Your task to perform on an android device: turn vacation reply on in the gmail app Image 0: 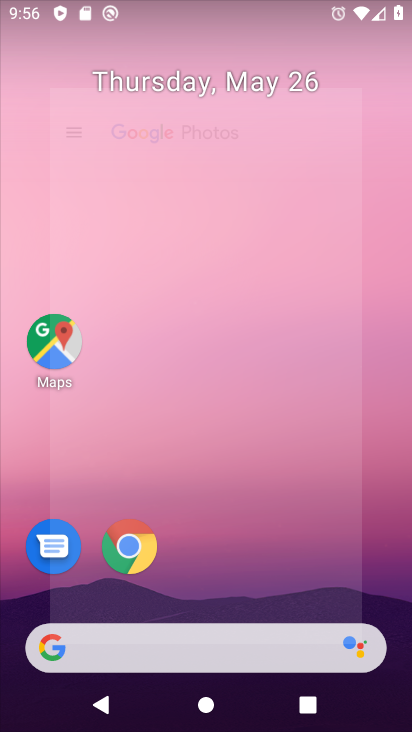
Step 0: drag from (267, 549) to (227, 84)
Your task to perform on an android device: turn vacation reply on in the gmail app Image 1: 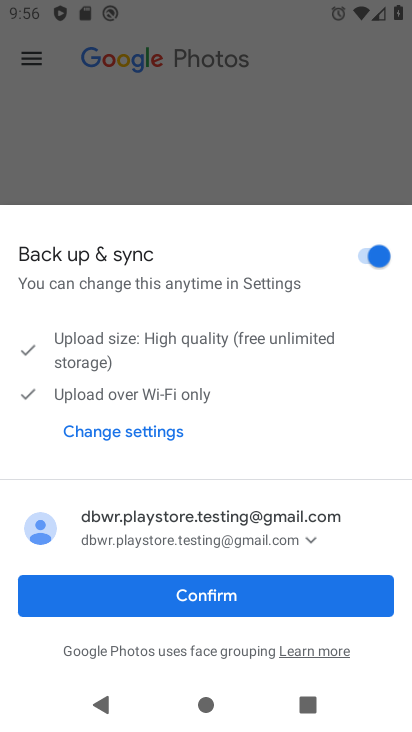
Step 1: press home button
Your task to perform on an android device: turn vacation reply on in the gmail app Image 2: 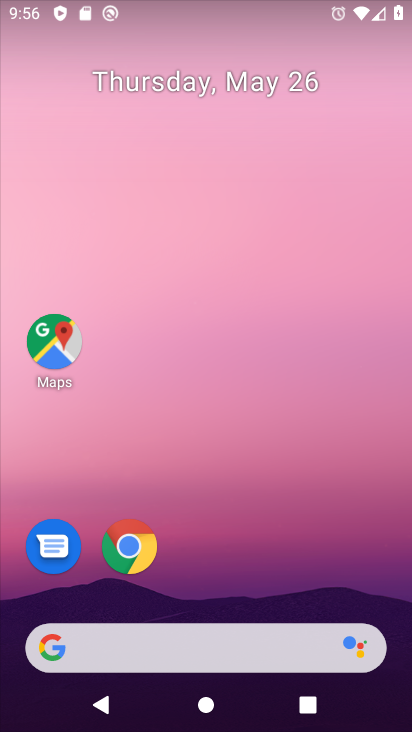
Step 2: drag from (262, 583) to (219, 145)
Your task to perform on an android device: turn vacation reply on in the gmail app Image 3: 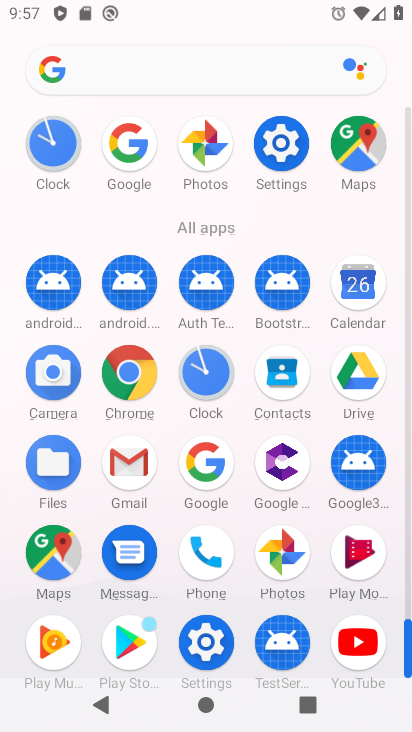
Step 3: click (131, 462)
Your task to perform on an android device: turn vacation reply on in the gmail app Image 4: 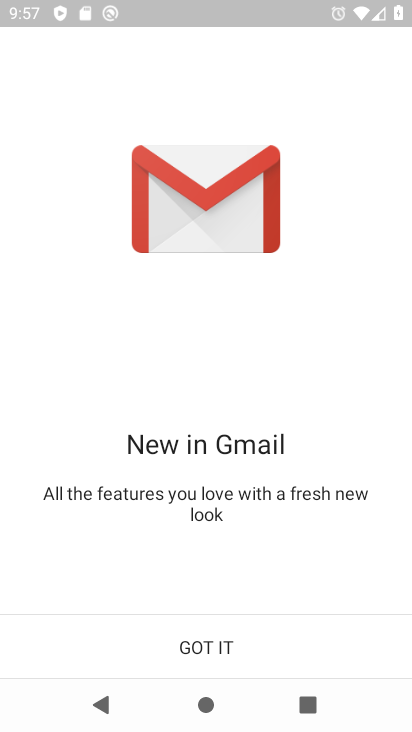
Step 4: click (213, 645)
Your task to perform on an android device: turn vacation reply on in the gmail app Image 5: 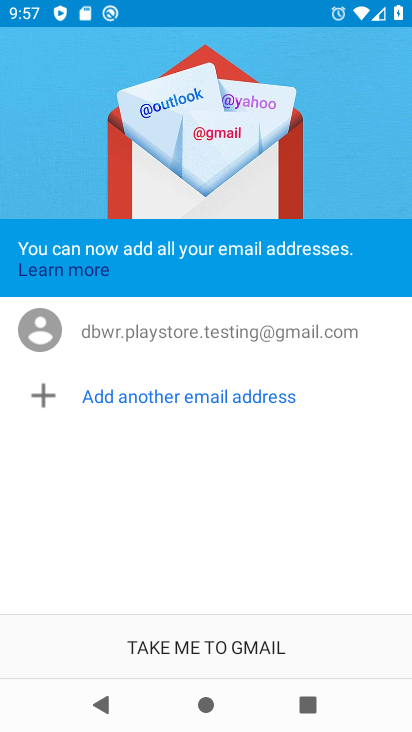
Step 5: click (213, 645)
Your task to perform on an android device: turn vacation reply on in the gmail app Image 6: 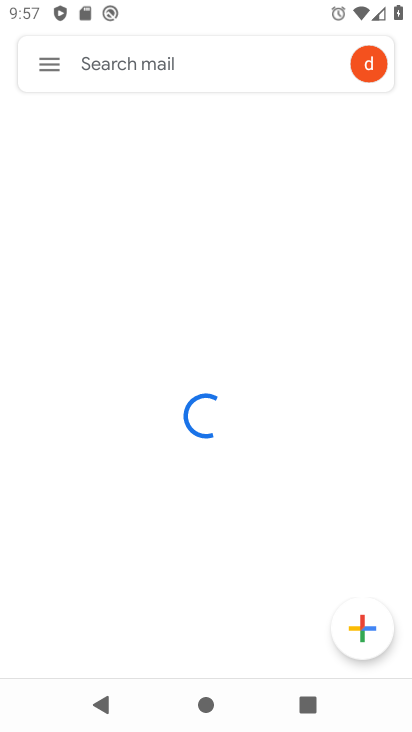
Step 6: click (44, 66)
Your task to perform on an android device: turn vacation reply on in the gmail app Image 7: 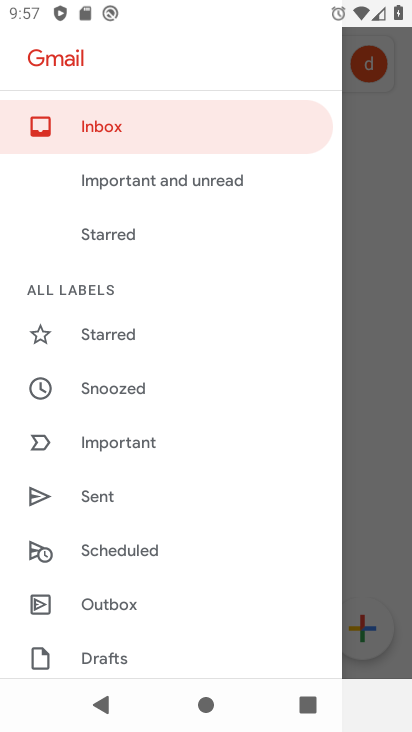
Step 7: drag from (110, 309) to (141, 233)
Your task to perform on an android device: turn vacation reply on in the gmail app Image 8: 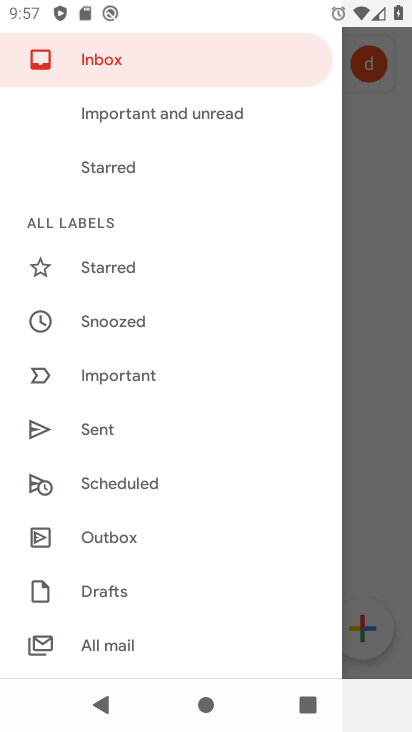
Step 8: drag from (109, 348) to (135, 277)
Your task to perform on an android device: turn vacation reply on in the gmail app Image 9: 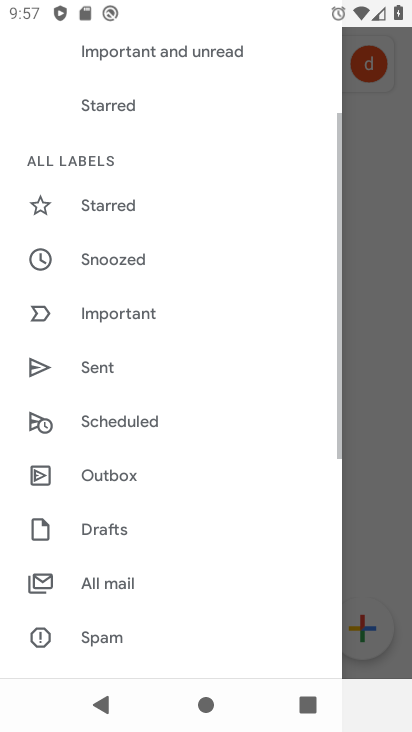
Step 9: drag from (108, 395) to (128, 325)
Your task to perform on an android device: turn vacation reply on in the gmail app Image 10: 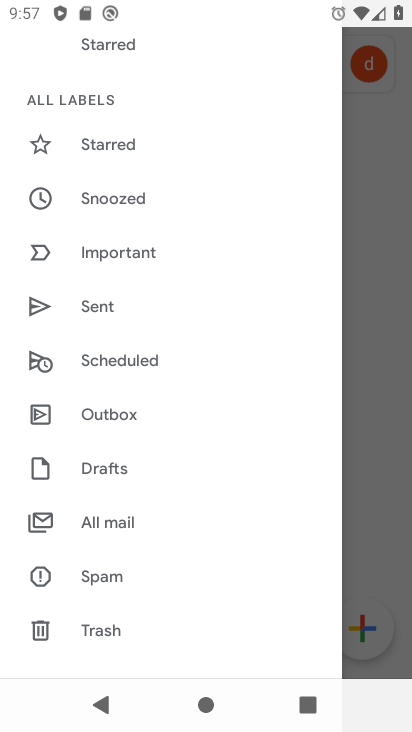
Step 10: drag from (114, 385) to (144, 311)
Your task to perform on an android device: turn vacation reply on in the gmail app Image 11: 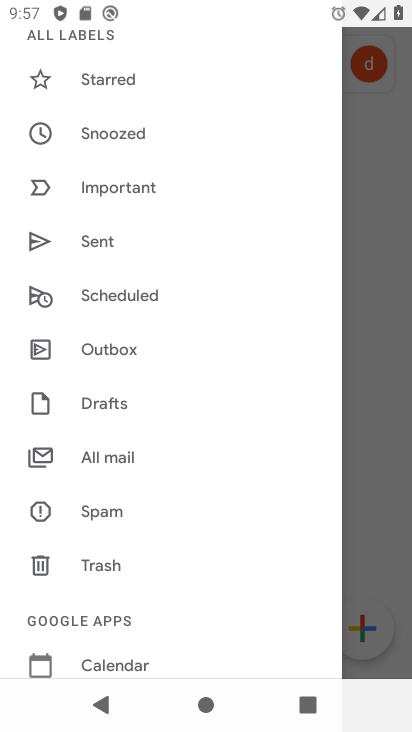
Step 11: drag from (105, 424) to (161, 349)
Your task to perform on an android device: turn vacation reply on in the gmail app Image 12: 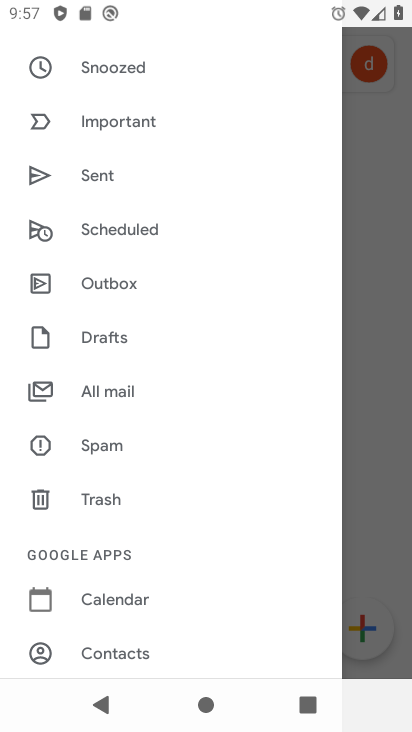
Step 12: drag from (111, 468) to (155, 385)
Your task to perform on an android device: turn vacation reply on in the gmail app Image 13: 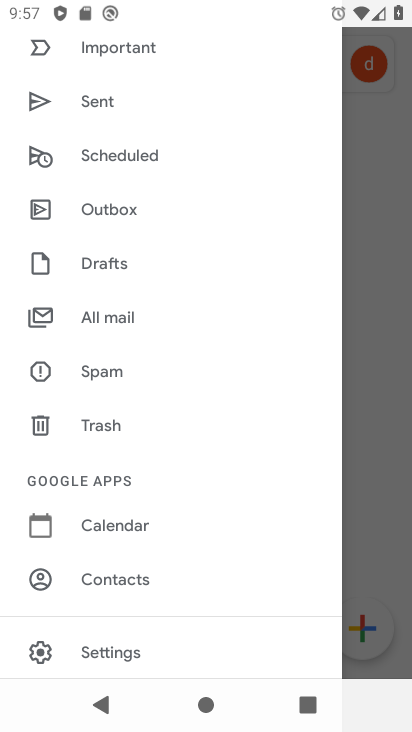
Step 13: drag from (103, 540) to (178, 456)
Your task to perform on an android device: turn vacation reply on in the gmail app Image 14: 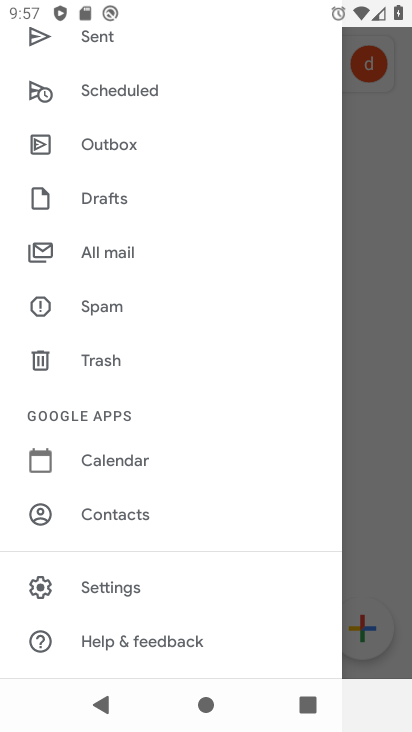
Step 14: click (107, 588)
Your task to perform on an android device: turn vacation reply on in the gmail app Image 15: 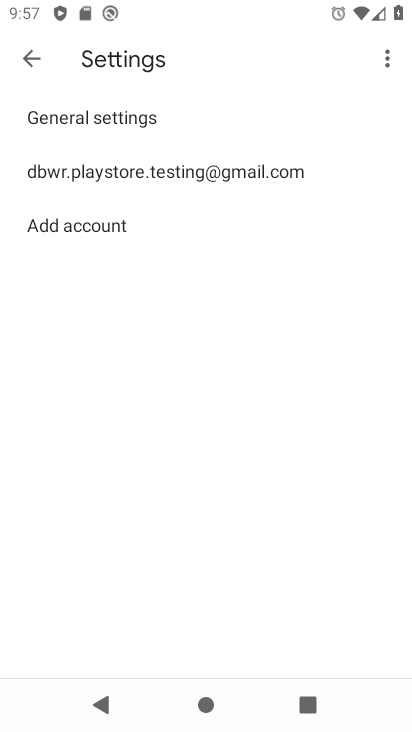
Step 15: click (160, 167)
Your task to perform on an android device: turn vacation reply on in the gmail app Image 16: 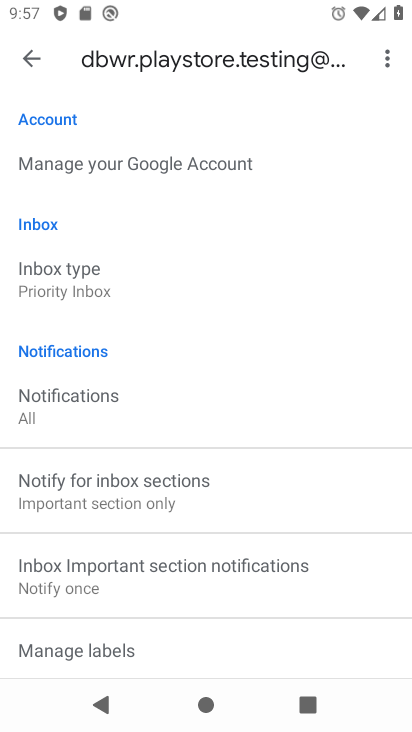
Step 16: drag from (122, 491) to (181, 378)
Your task to perform on an android device: turn vacation reply on in the gmail app Image 17: 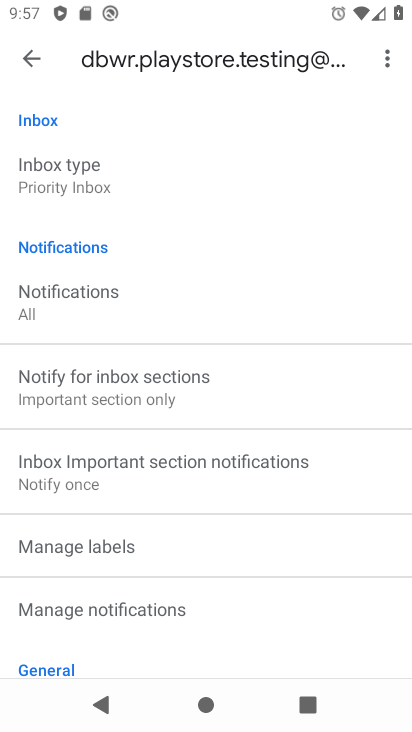
Step 17: drag from (131, 493) to (180, 419)
Your task to perform on an android device: turn vacation reply on in the gmail app Image 18: 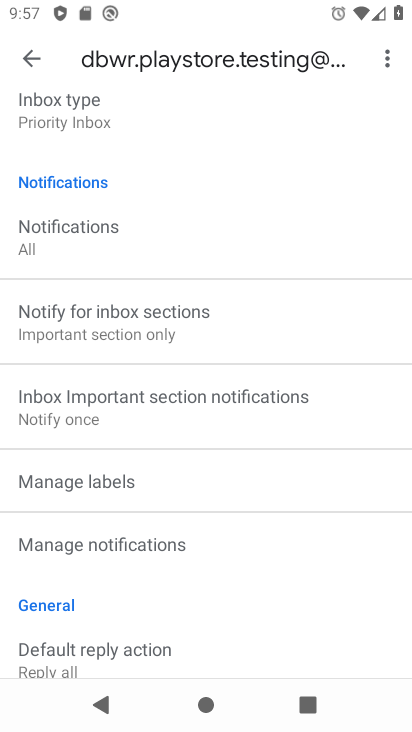
Step 18: drag from (124, 555) to (190, 463)
Your task to perform on an android device: turn vacation reply on in the gmail app Image 19: 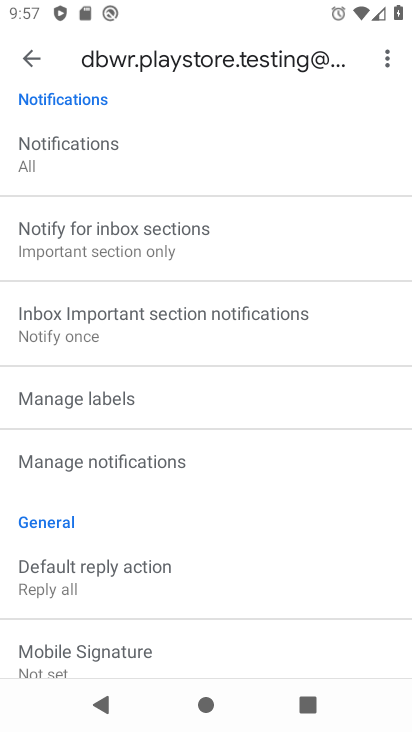
Step 19: drag from (113, 552) to (159, 477)
Your task to perform on an android device: turn vacation reply on in the gmail app Image 20: 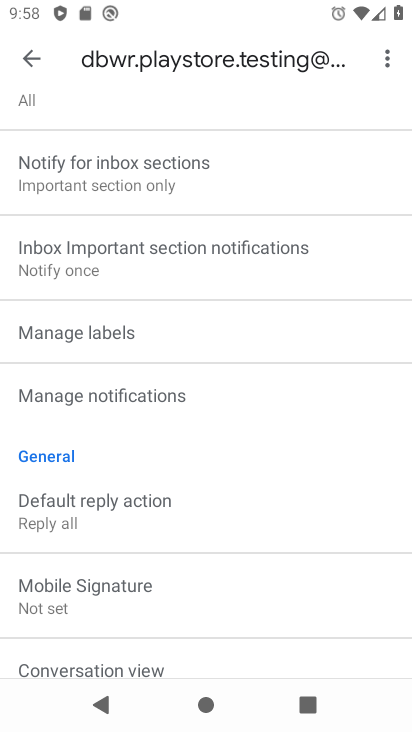
Step 20: drag from (104, 531) to (170, 454)
Your task to perform on an android device: turn vacation reply on in the gmail app Image 21: 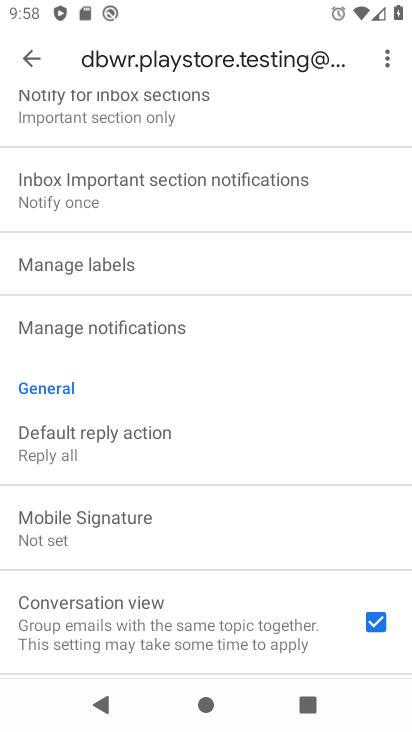
Step 21: click (162, 465)
Your task to perform on an android device: turn vacation reply on in the gmail app Image 22: 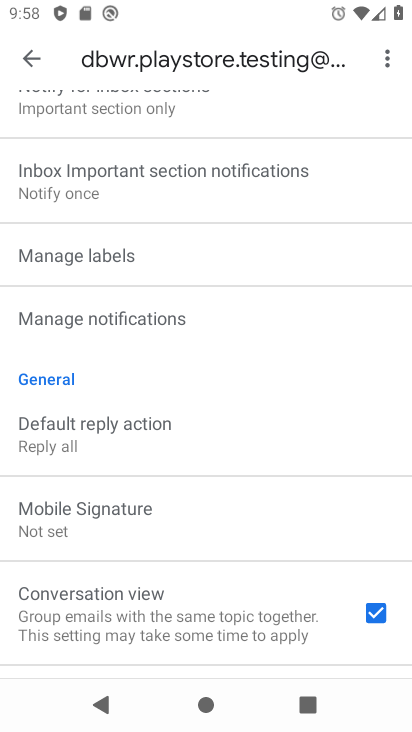
Step 22: drag from (108, 544) to (166, 450)
Your task to perform on an android device: turn vacation reply on in the gmail app Image 23: 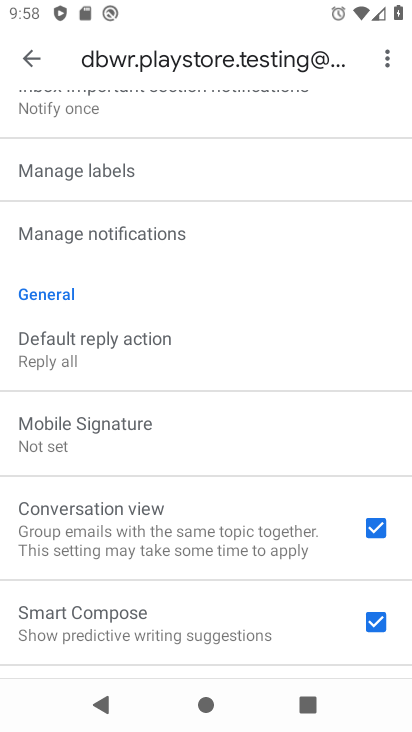
Step 23: drag from (106, 582) to (171, 475)
Your task to perform on an android device: turn vacation reply on in the gmail app Image 24: 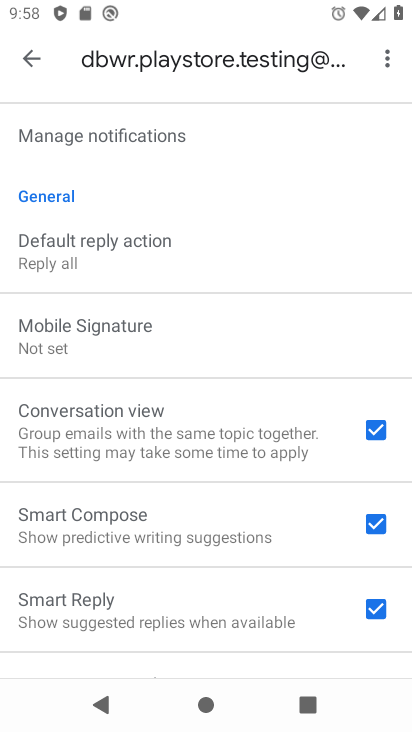
Step 24: drag from (95, 576) to (178, 463)
Your task to perform on an android device: turn vacation reply on in the gmail app Image 25: 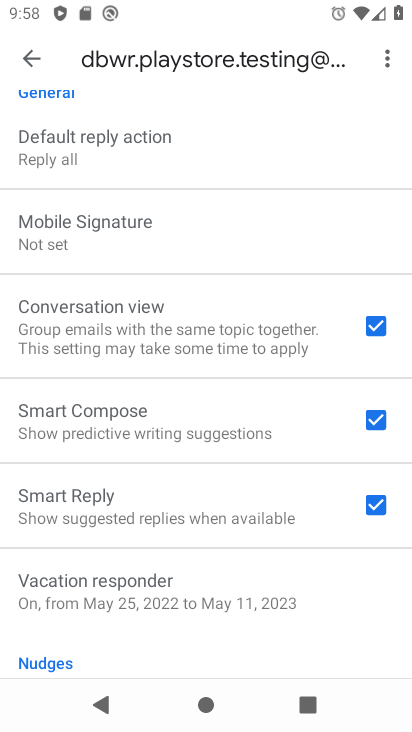
Step 25: click (114, 604)
Your task to perform on an android device: turn vacation reply on in the gmail app Image 26: 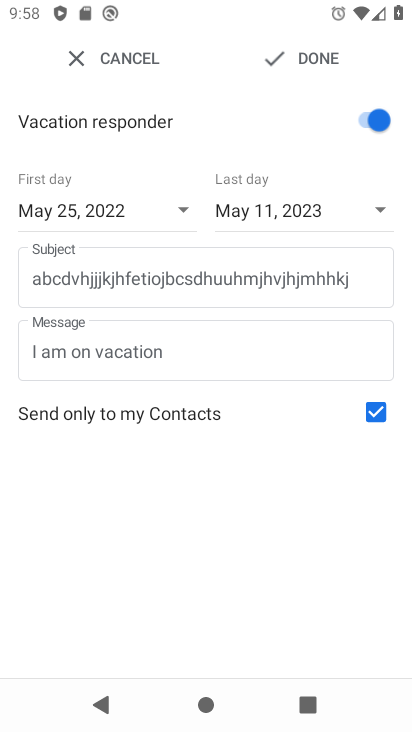
Step 26: task complete